Your task to perform on an android device: Open sound settings Image 0: 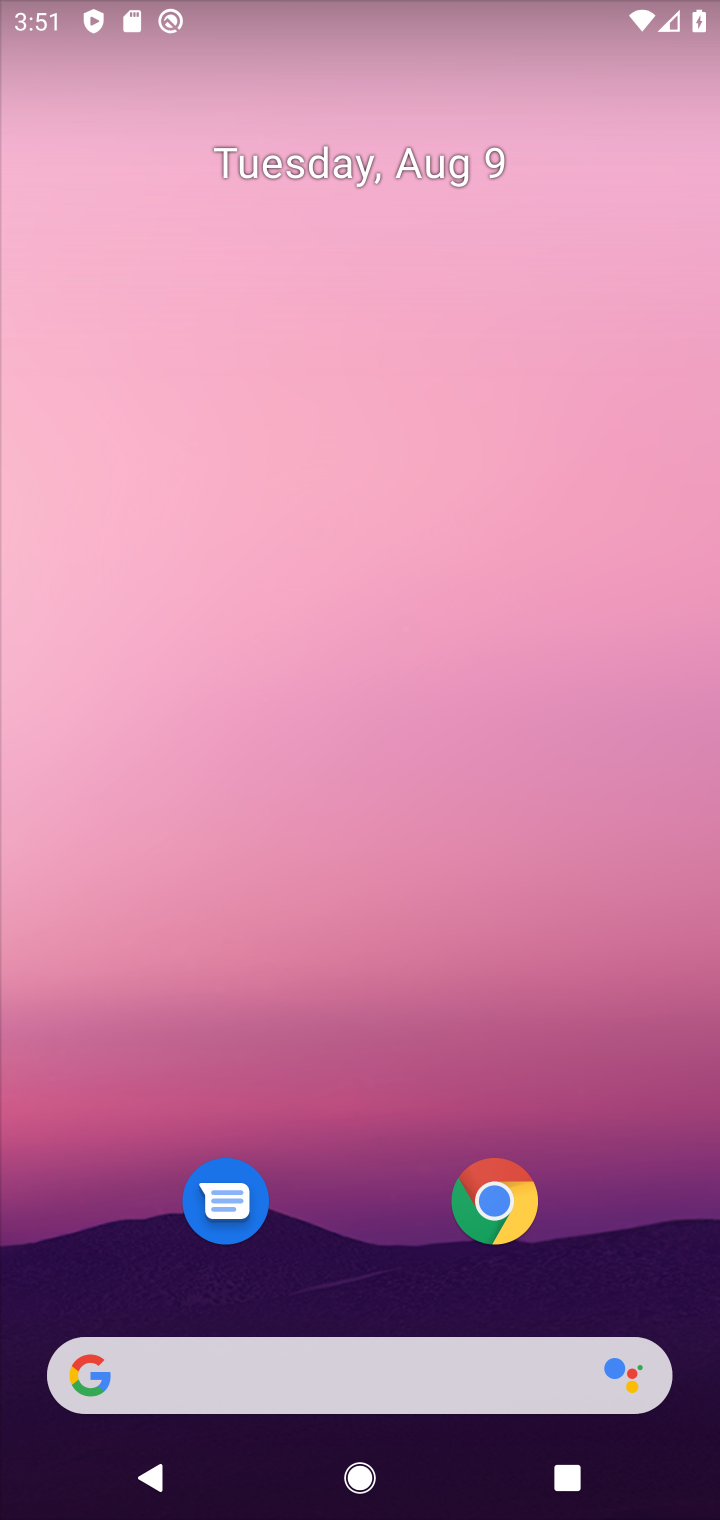
Step 0: drag from (388, 1373) to (509, 129)
Your task to perform on an android device: Open sound settings Image 1: 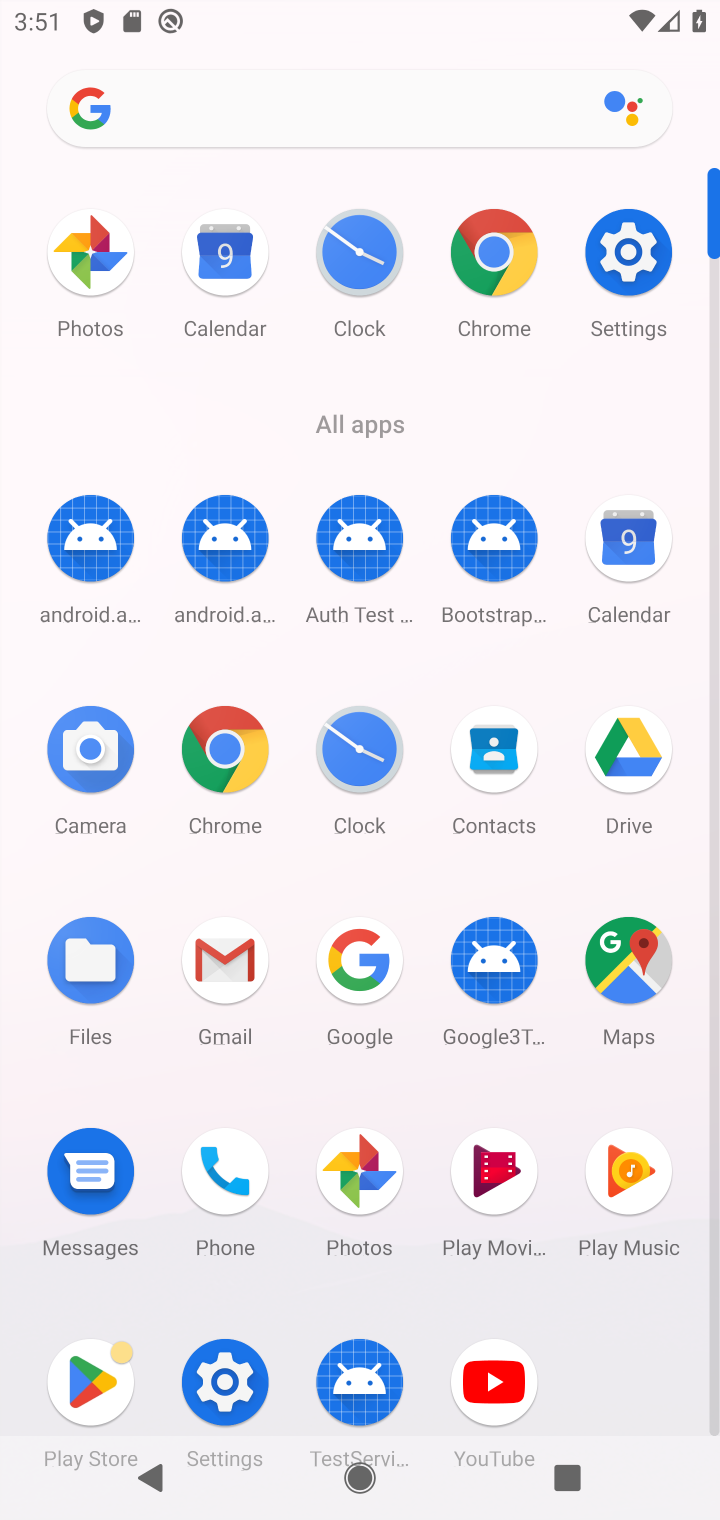
Step 1: click (630, 252)
Your task to perform on an android device: Open sound settings Image 2: 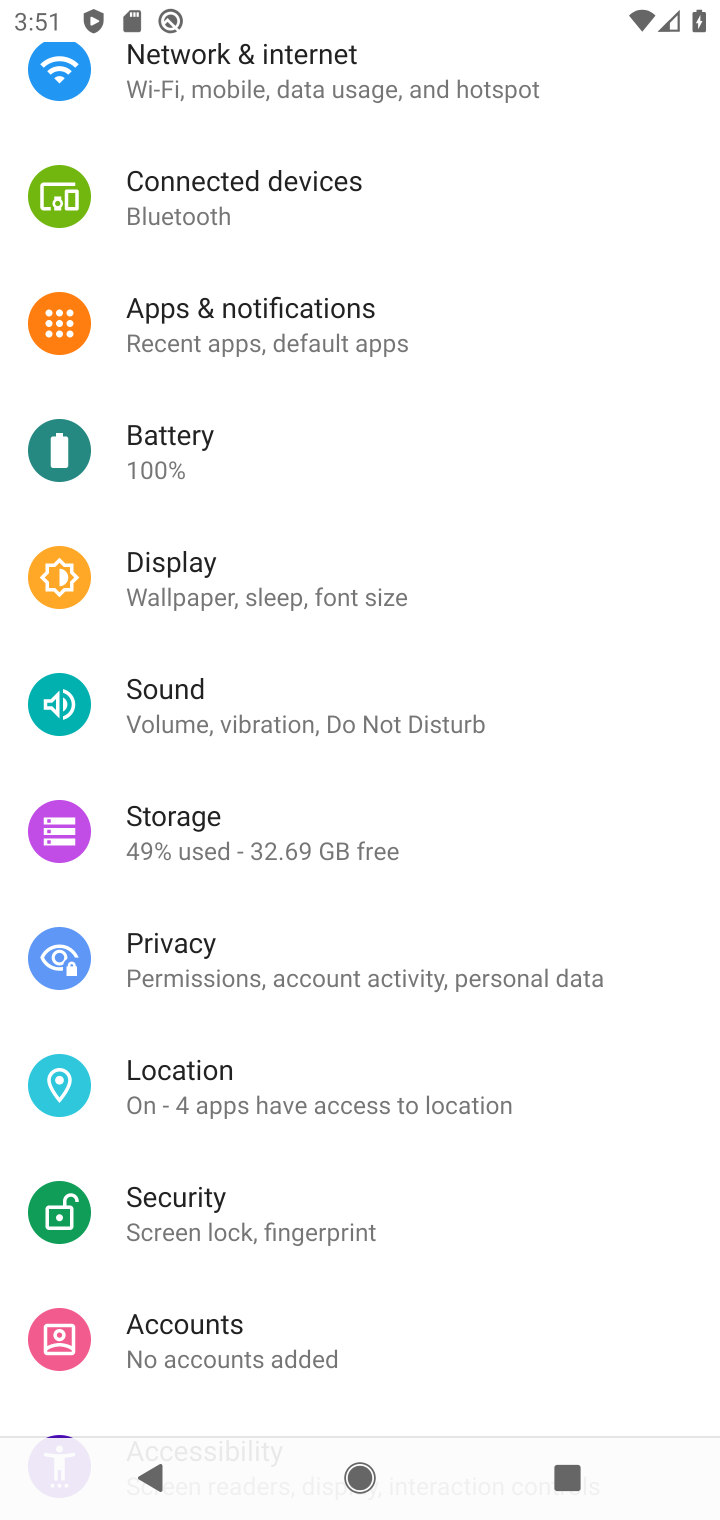
Step 2: click (253, 710)
Your task to perform on an android device: Open sound settings Image 3: 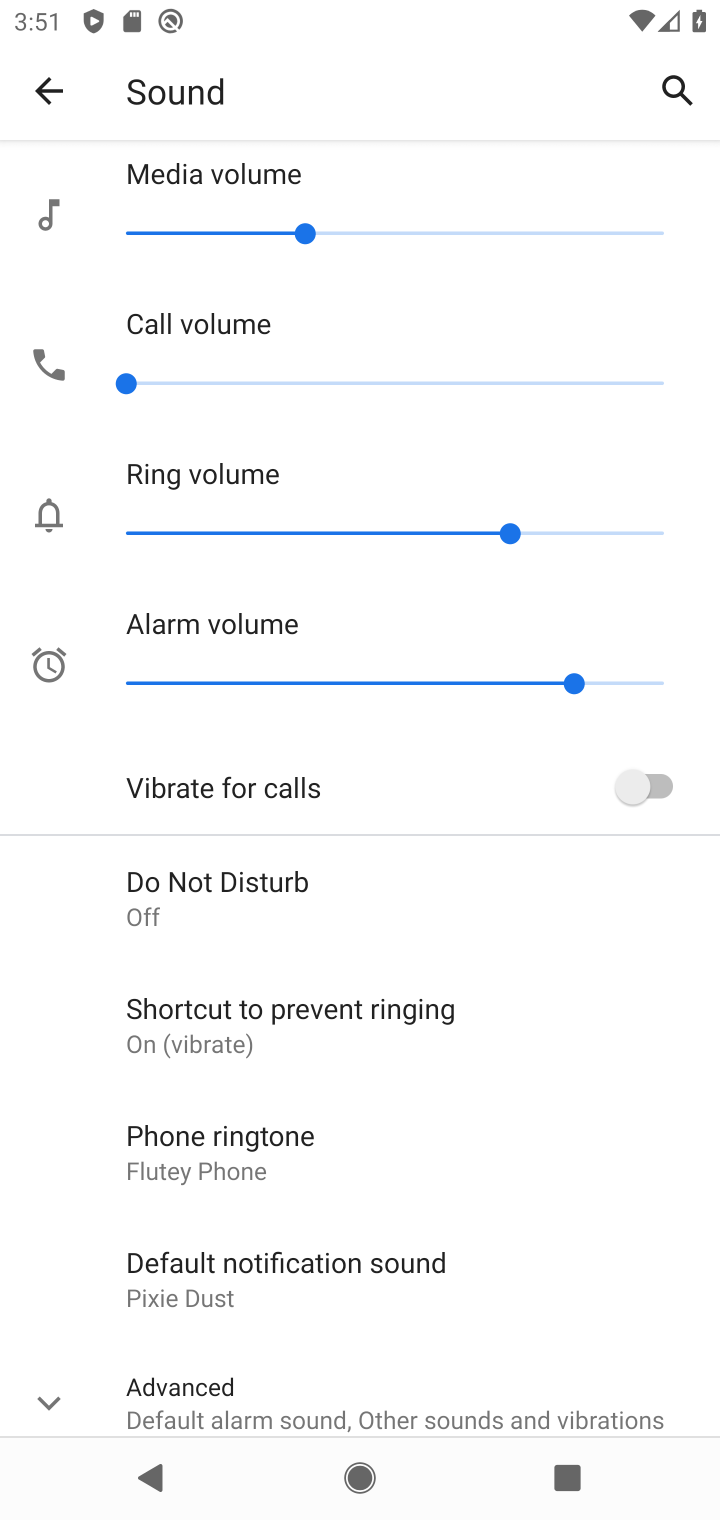
Step 3: task complete